Your task to perform on an android device: Open the phone app and click the voicemail tab. Image 0: 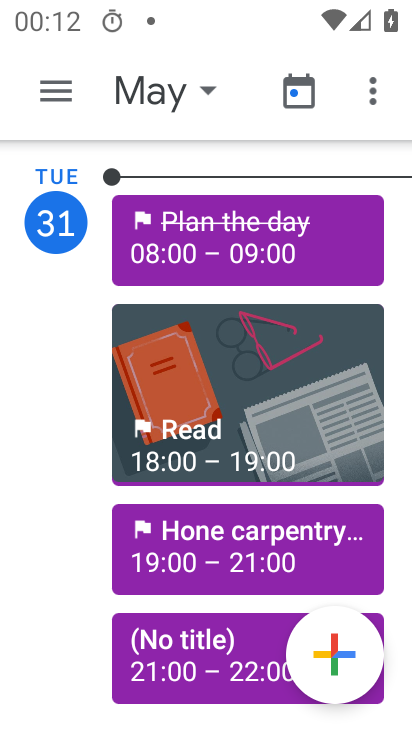
Step 0: press home button
Your task to perform on an android device: Open the phone app and click the voicemail tab. Image 1: 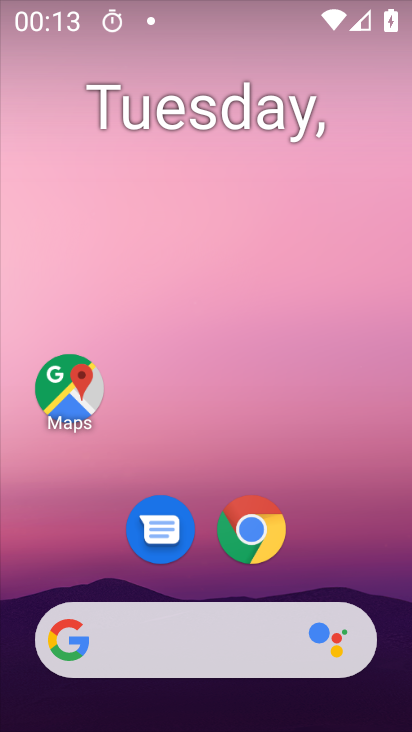
Step 1: drag from (346, 549) to (305, 5)
Your task to perform on an android device: Open the phone app and click the voicemail tab. Image 2: 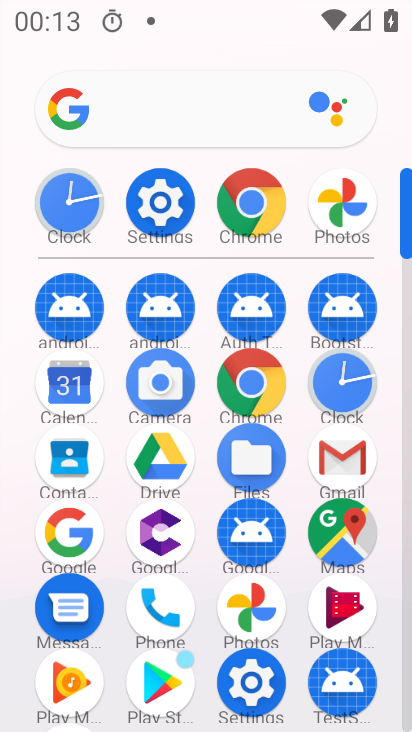
Step 2: click (164, 623)
Your task to perform on an android device: Open the phone app and click the voicemail tab. Image 3: 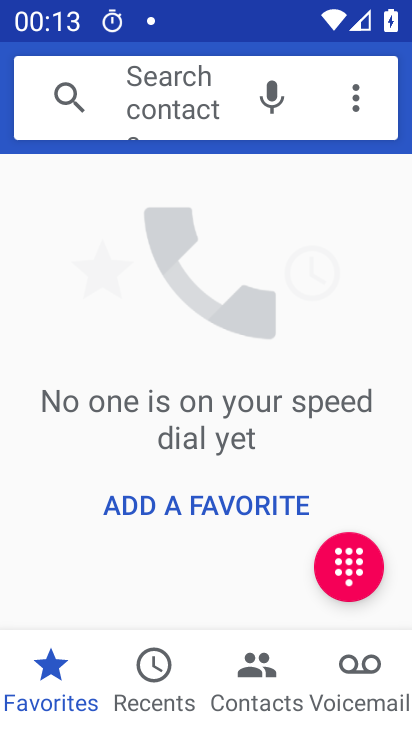
Step 3: click (334, 691)
Your task to perform on an android device: Open the phone app and click the voicemail tab. Image 4: 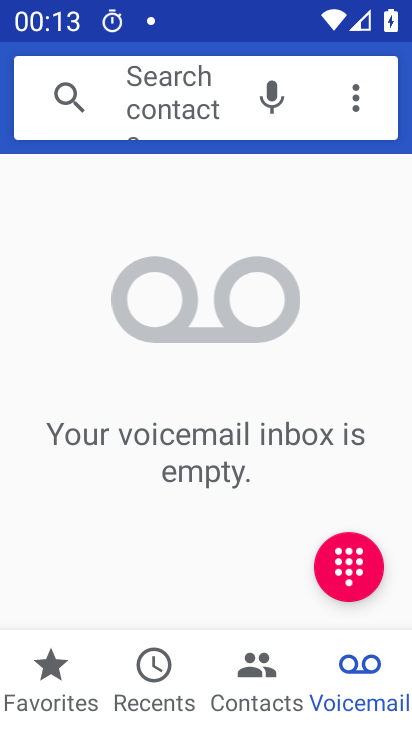
Step 4: task complete